Your task to perform on an android device: turn notification dots on Image 0: 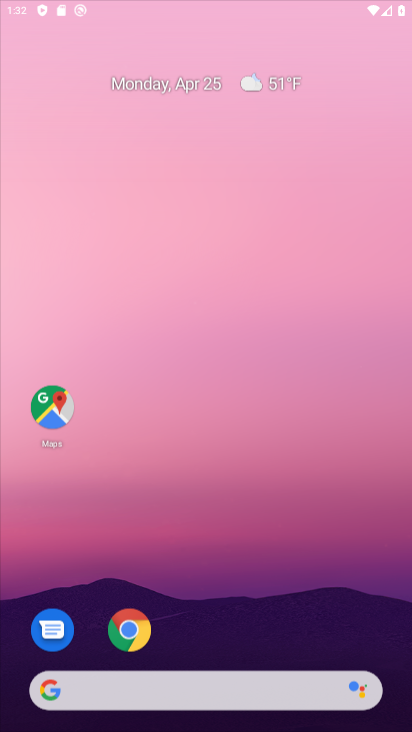
Step 0: drag from (311, 288) to (291, 69)
Your task to perform on an android device: turn notification dots on Image 1: 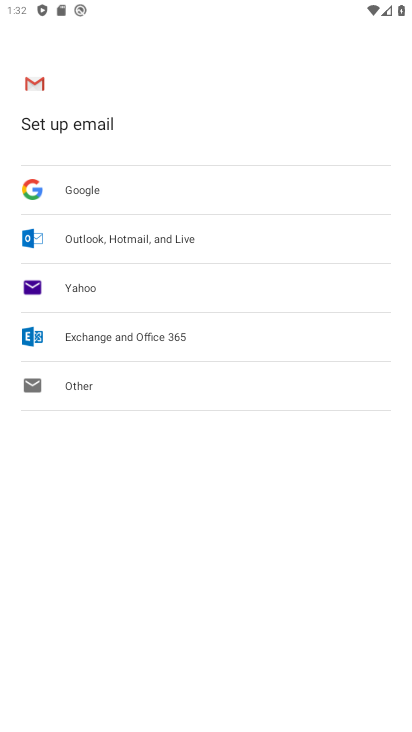
Step 1: press home button
Your task to perform on an android device: turn notification dots on Image 2: 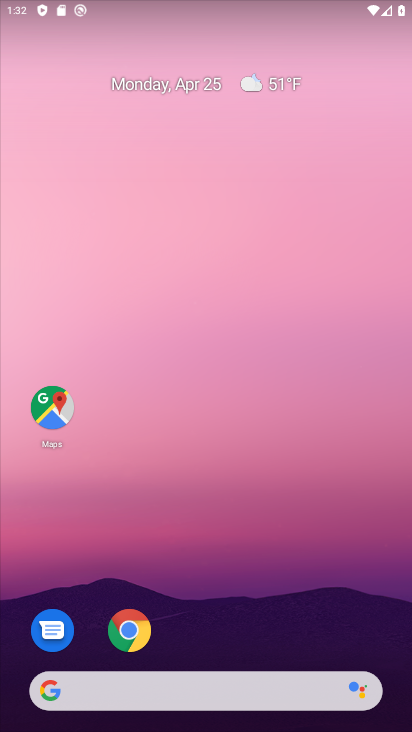
Step 2: drag from (304, 563) to (244, 0)
Your task to perform on an android device: turn notification dots on Image 3: 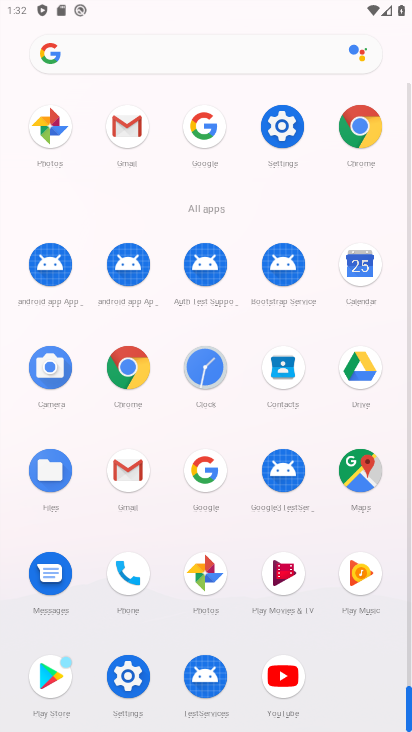
Step 3: click (281, 121)
Your task to perform on an android device: turn notification dots on Image 4: 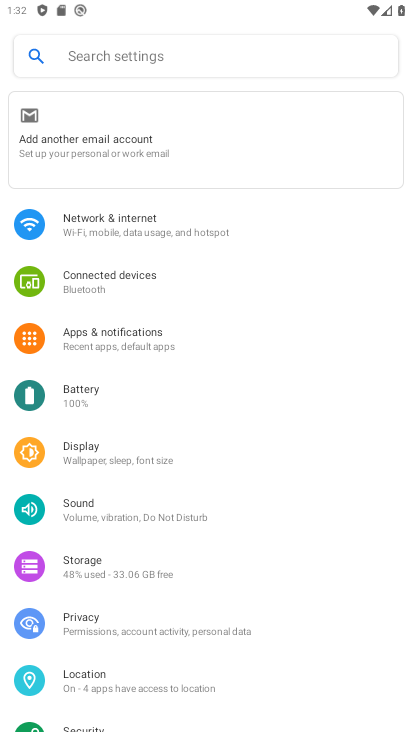
Step 4: drag from (208, 367) to (193, 200)
Your task to perform on an android device: turn notification dots on Image 5: 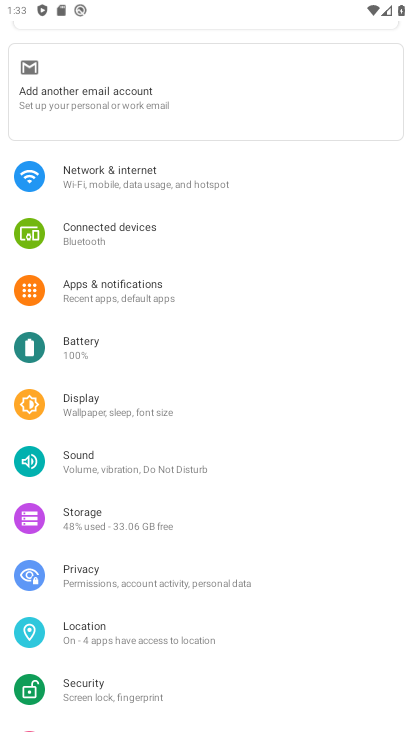
Step 5: click (135, 295)
Your task to perform on an android device: turn notification dots on Image 6: 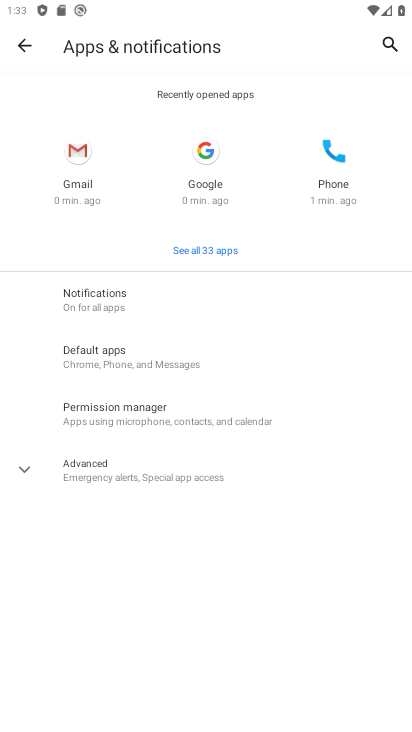
Step 6: click (135, 295)
Your task to perform on an android device: turn notification dots on Image 7: 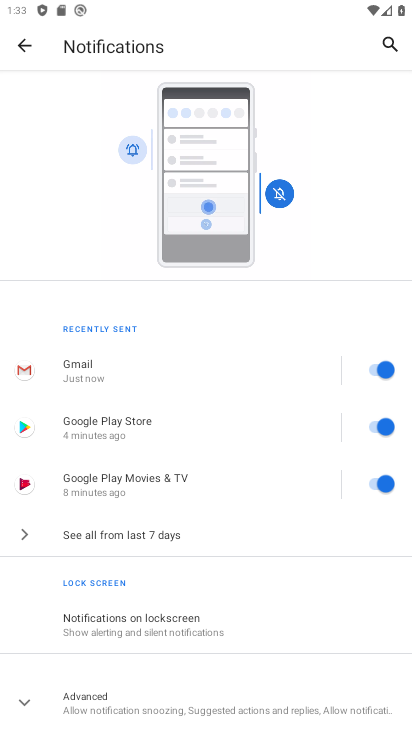
Step 7: drag from (237, 590) to (223, 221)
Your task to perform on an android device: turn notification dots on Image 8: 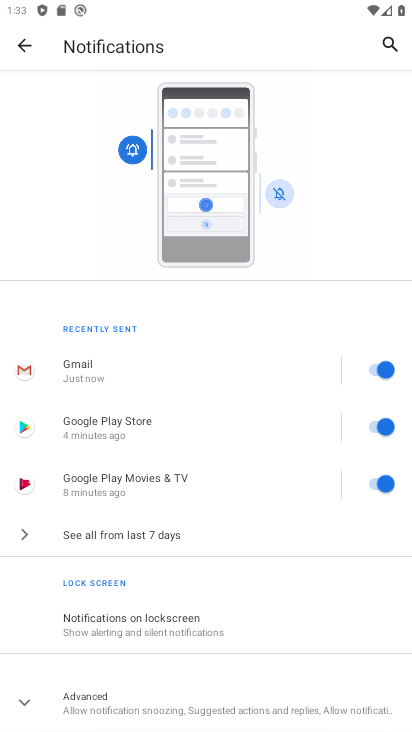
Step 8: drag from (217, 561) to (183, 218)
Your task to perform on an android device: turn notification dots on Image 9: 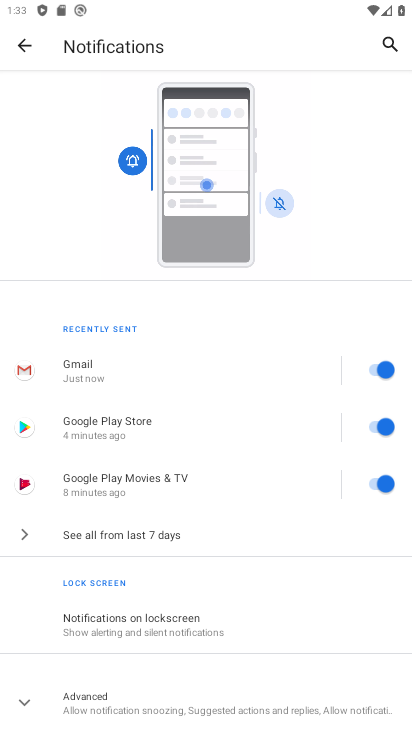
Step 9: click (130, 709)
Your task to perform on an android device: turn notification dots on Image 10: 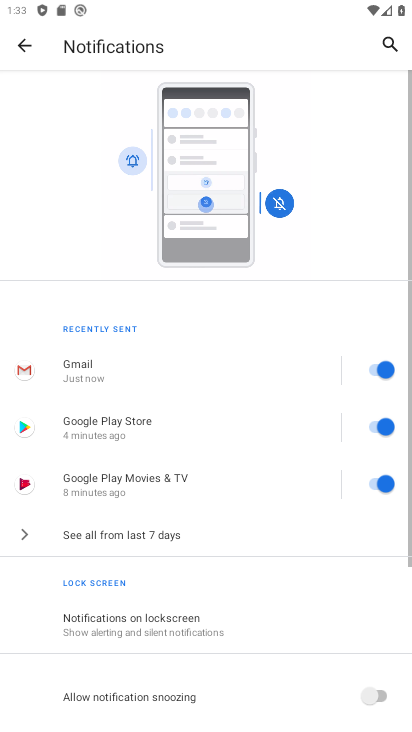
Step 10: task complete